Your task to perform on an android device: What's the weather today? Image 0: 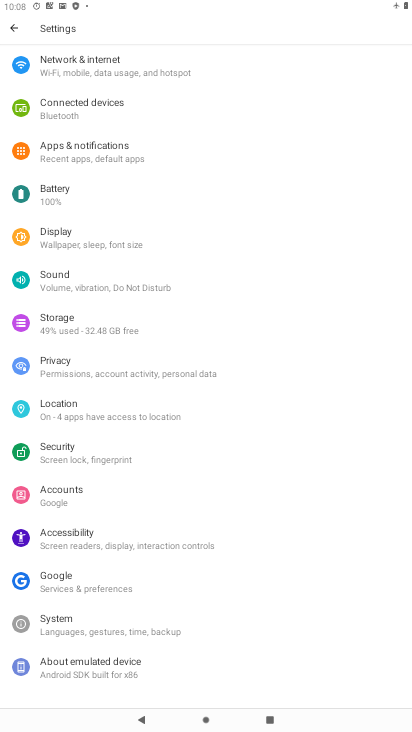
Step 0: press home button
Your task to perform on an android device: What's the weather today? Image 1: 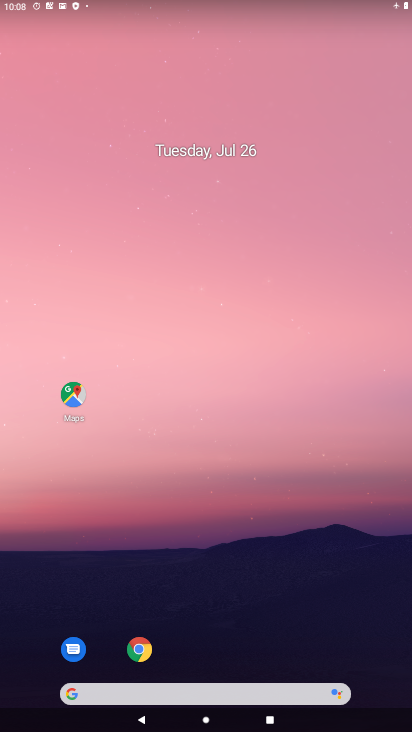
Step 1: drag from (157, 640) to (96, 40)
Your task to perform on an android device: What's the weather today? Image 2: 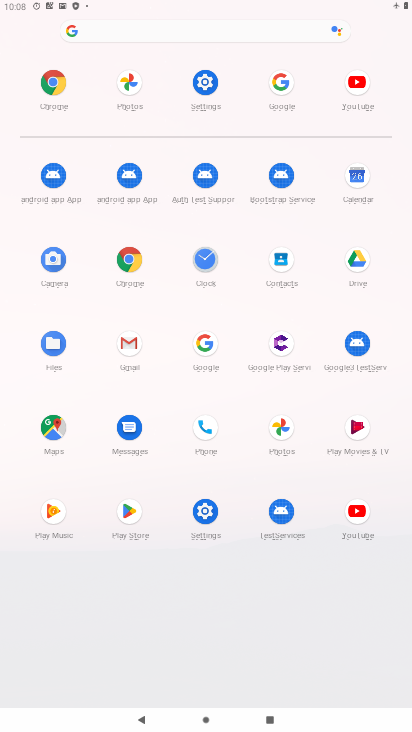
Step 2: click (148, 31)
Your task to perform on an android device: What's the weather today? Image 3: 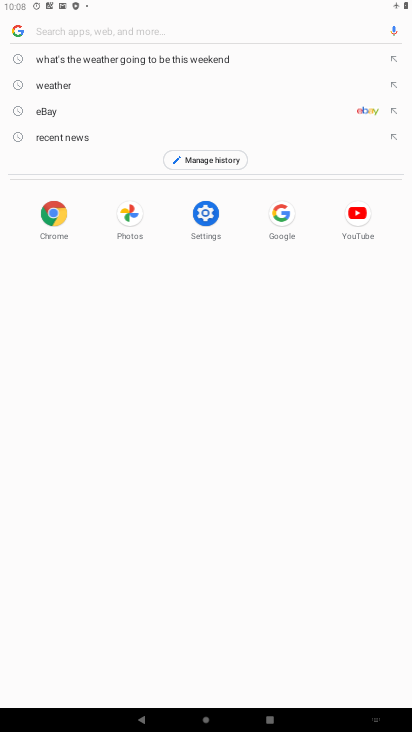
Step 3: type "What's the weather today?"
Your task to perform on an android device: What's the weather today? Image 4: 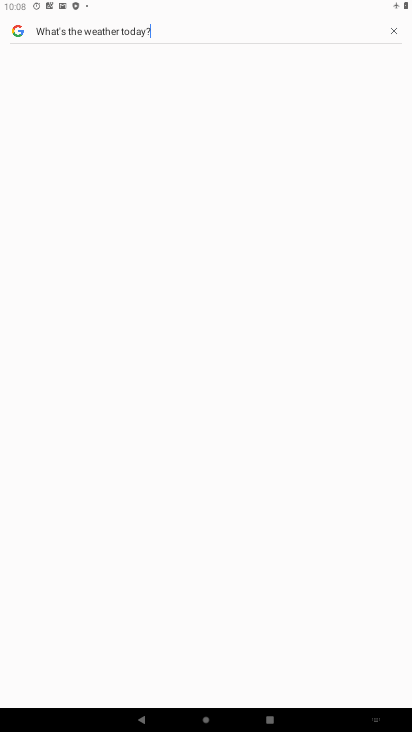
Step 4: type ""
Your task to perform on an android device: What's the weather today? Image 5: 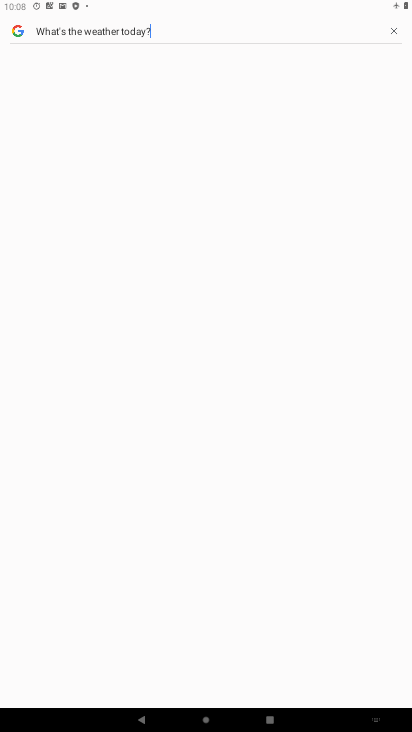
Step 5: drag from (247, 135) to (257, 300)
Your task to perform on an android device: What's the weather today? Image 6: 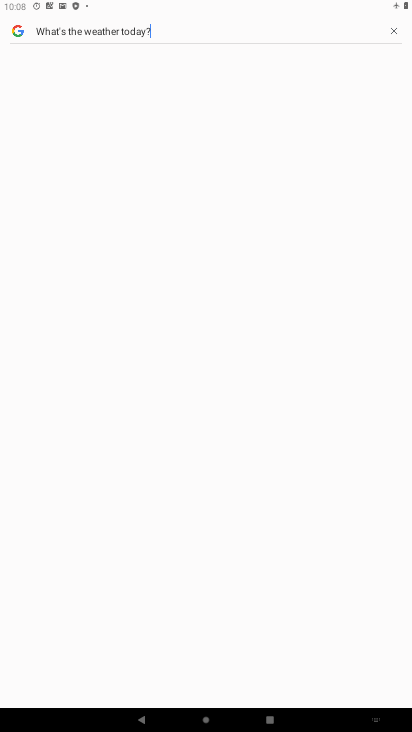
Step 6: click (246, 152)
Your task to perform on an android device: What's the weather today? Image 7: 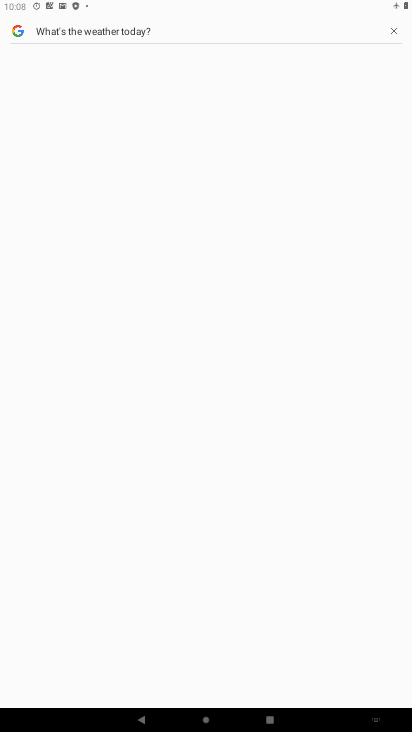
Step 7: task complete